Your task to perform on an android device: What is the recent news? Image 0: 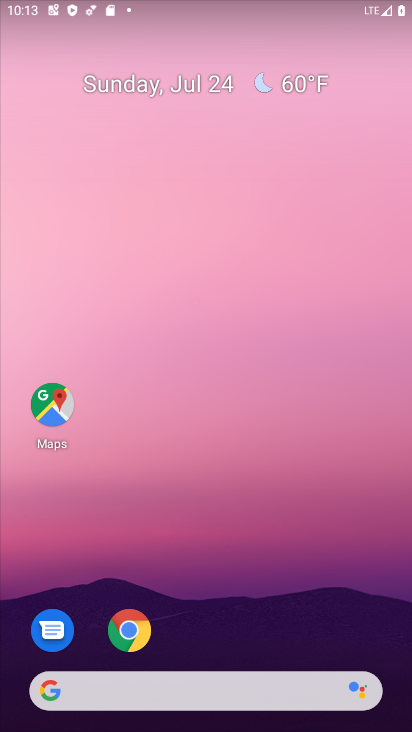
Step 0: click (216, 688)
Your task to perform on an android device: What is the recent news? Image 1: 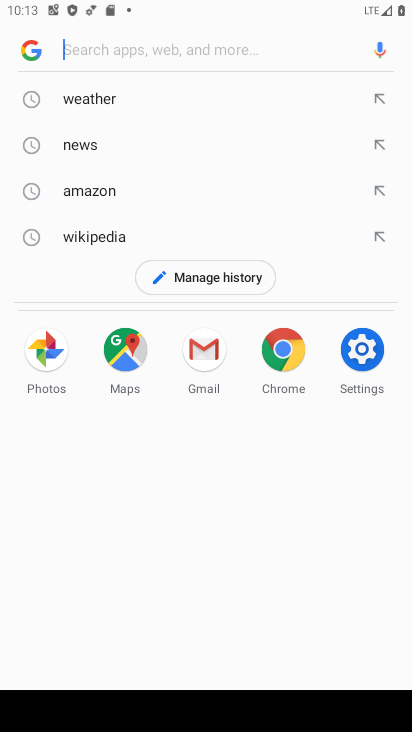
Step 1: type "recent news"
Your task to perform on an android device: What is the recent news? Image 2: 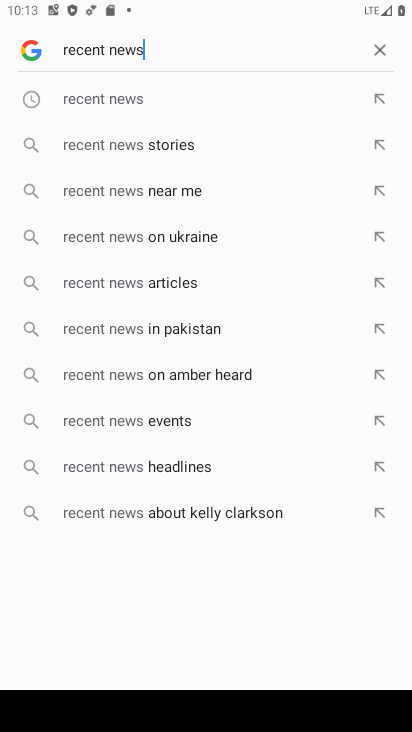
Step 2: click (120, 103)
Your task to perform on an android device: What is the recent news? Image 3: 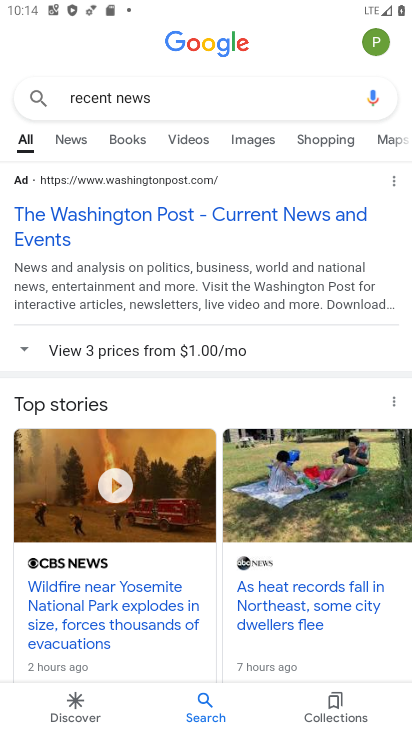
Step 3: task complete